Your task to perform on an android device: Show me productivity apps on the Play Store Image 0: 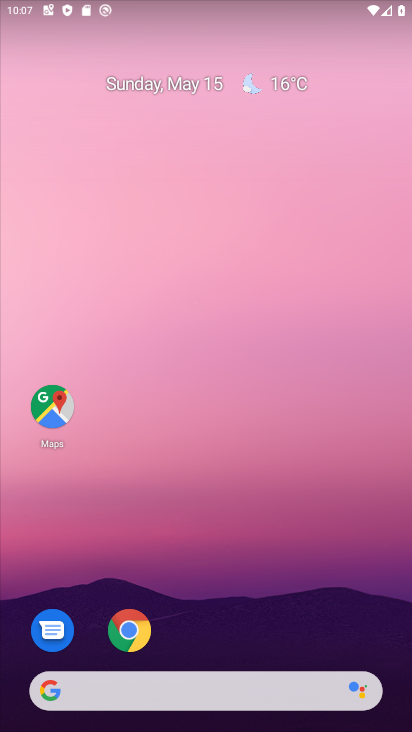
Step 0: drag from (214, 616) to (224, 251)
Your task to perform on an android device: Show me productivity apps on the Play Store Image 1: 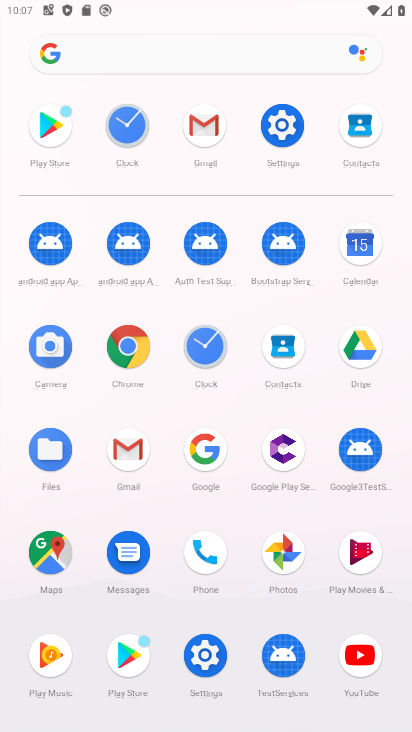
Step 1: click (129, 638)
Your task to perform on an android device: Show me productivity apps on the Play Store Image 2: 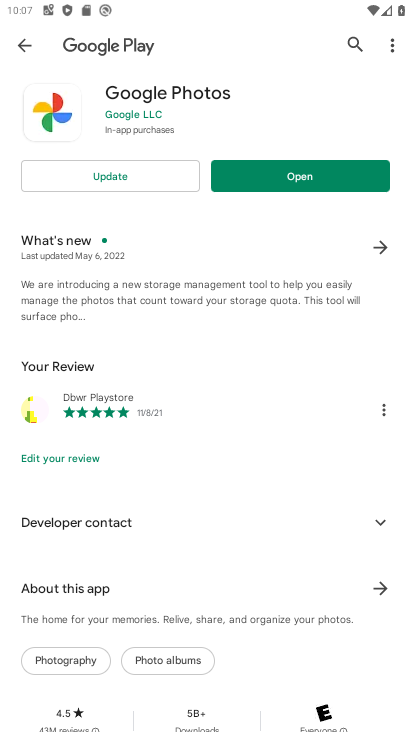
Step 2: click (255, 164)
Your task to perform on an android device: Show me productivity apps on the Play Store Image 3: 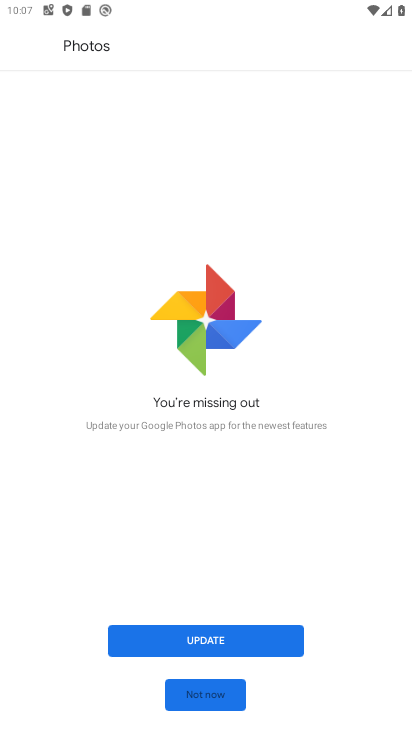
Step 3: click (223, 702)
Your task to perform on an android device: Show me productivity apps on the Play Store Image 4: 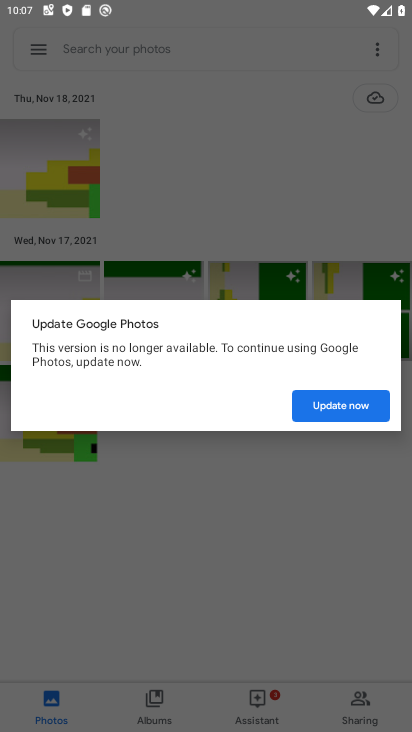
Step 4: click (311, 408)
Your task to perform on an android device: Show me productivity apps on the Play Store Image 5: 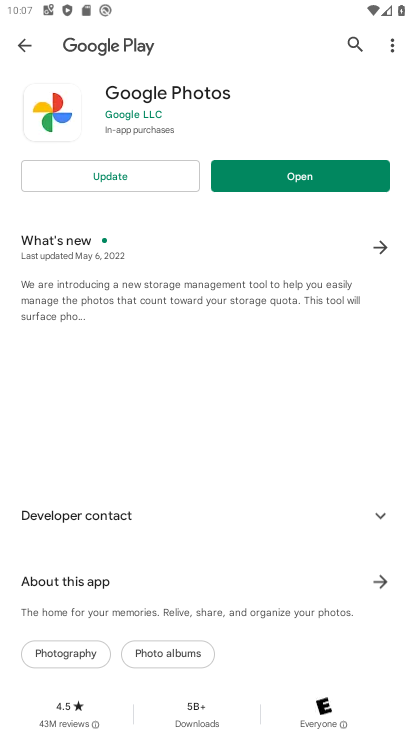
Step 5: click (287, 173)
Your task to perform on an android device: Show me productivity apps on the Play Store Image 6: 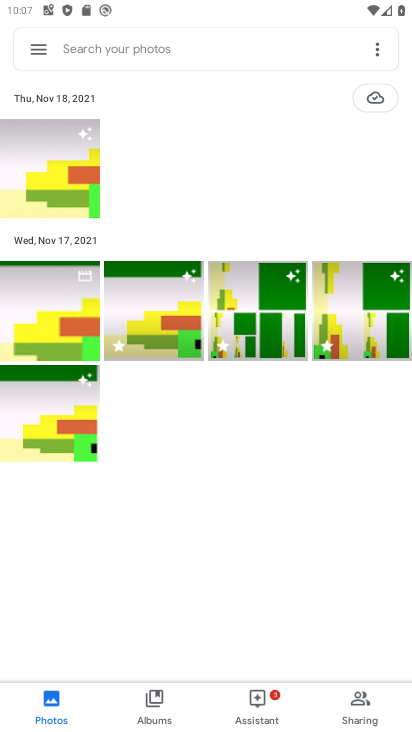
Step 6: press back button
Your task to perform on an android device: Show me productivity apps on the Play Store Image 7: 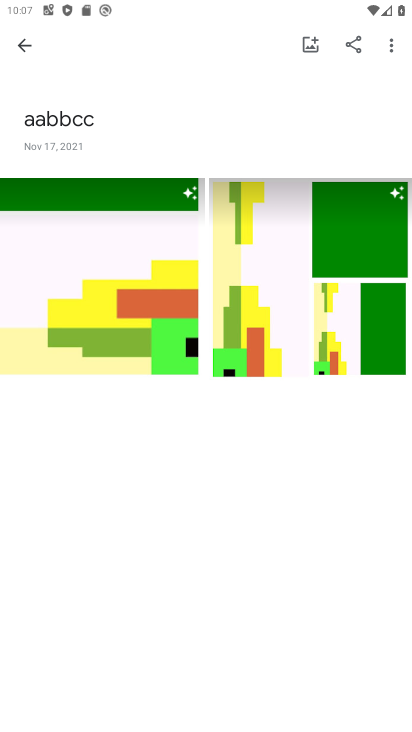
Step 7: press back button
Your task to perform on an android device: Show me productivity apps on the Play Store Image 8: 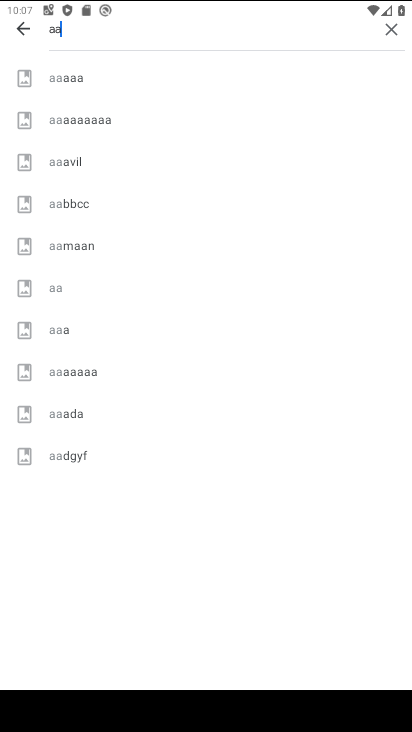
Step 8: press back button
Your task to perform on an android device: Show me productivity apps on the Play Store Image 9: 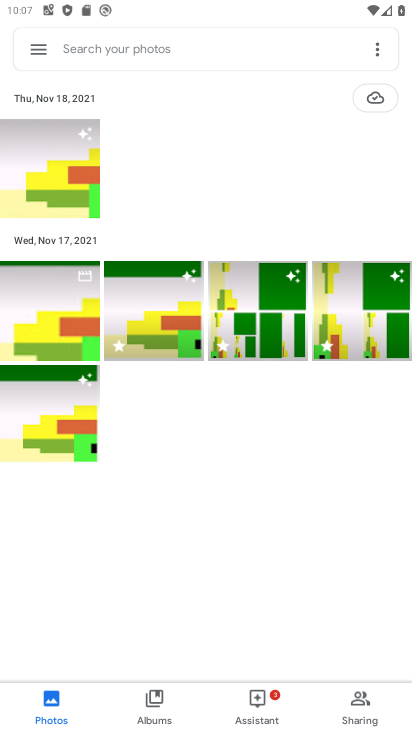
Step 9: press back button
Your task to perform on an android device: Show me productivity apps on the Play Store Image 10: 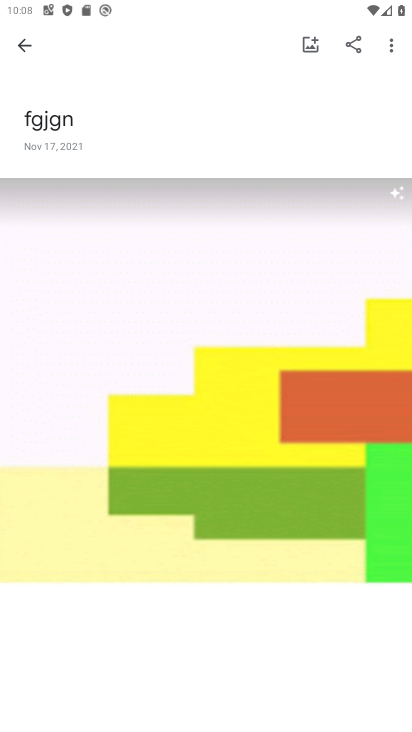
Step 10: press home button
Your task to perform on an android device: Show me productivity apps on the Play Store Image 11: 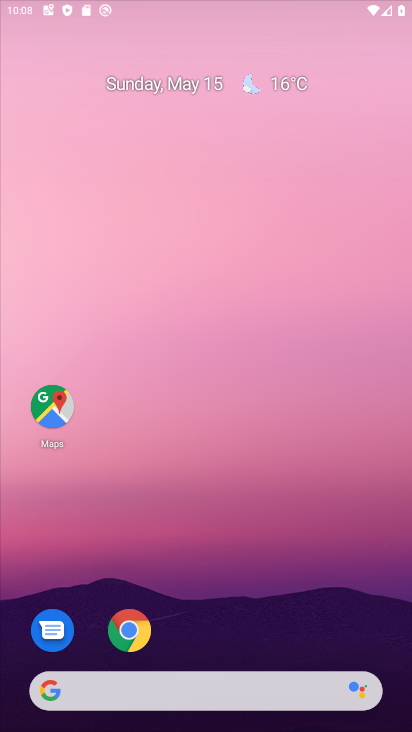
Step 11: drag from (197, 637) to (185, 242)
Your task to perform on an android device: Show me productivity apps on the Play Store Image 12: 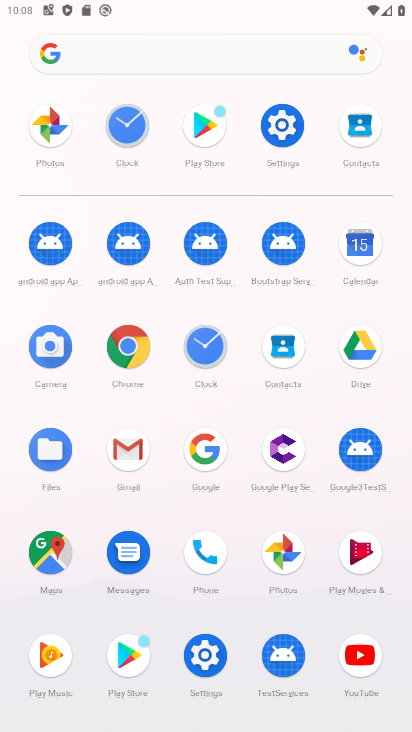
Step 12: click (202, 145)
Your task to perform on an android device: Show me productivity apps on the Play Store Image 13: 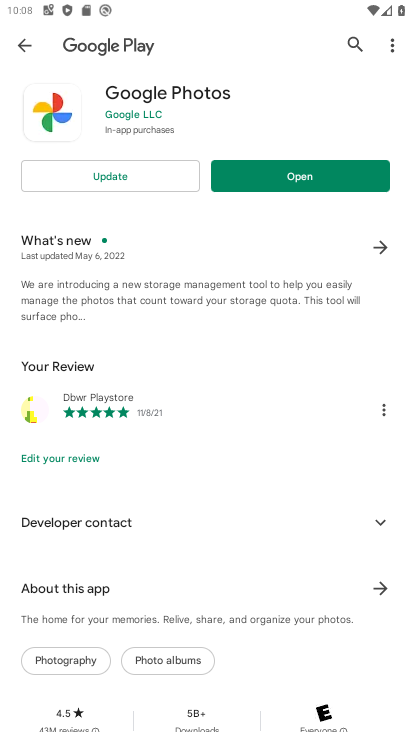
Step 13: click (21, 50)
Your task to perform on an android device: Show me productivity apps on the Play Store Image 14: 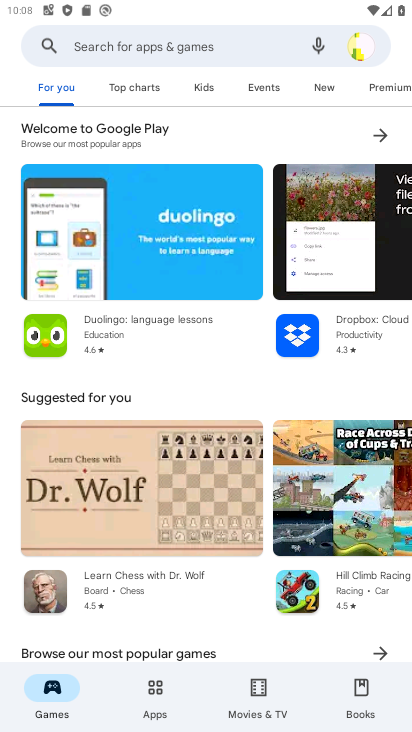
Step 14: click (153, 688)
Your task to perform on an android device: Show me productivity apps on the Play Store Image 15: 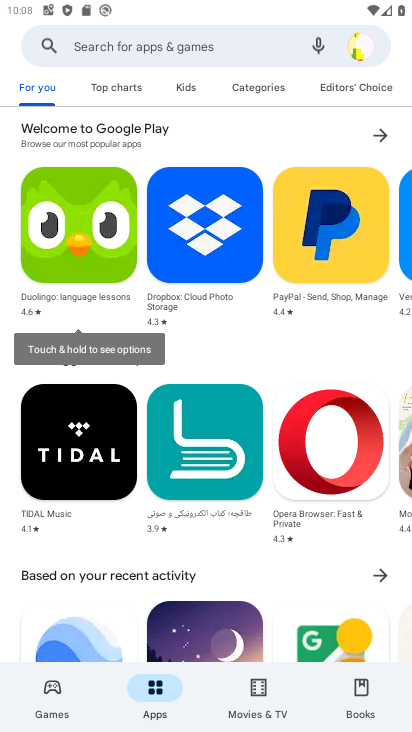
Step 15: click (255, 79)
Your task to perform on an android device: Show me productivity apps on the Play Store Image 16: 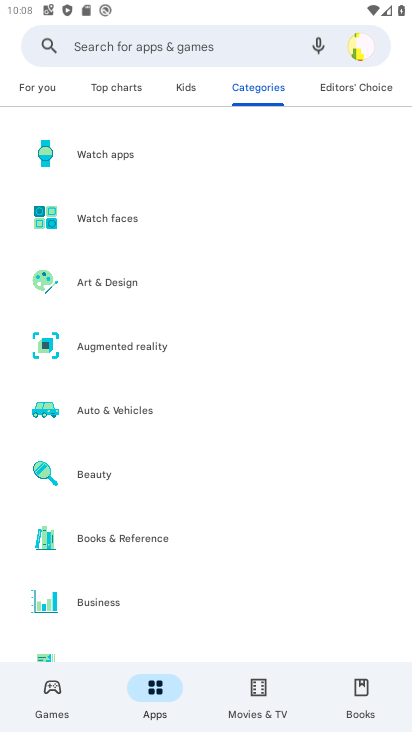
Step 16: drag from (210, 612) to (214, 290)
Your task to perform on an android device: Show me productivity apps on the Play Store Image 17: 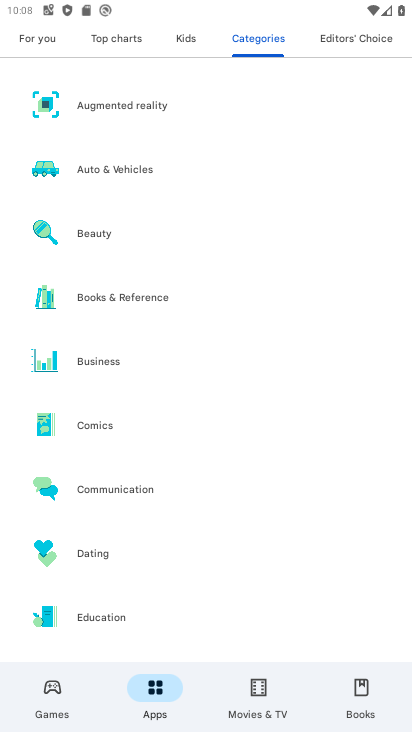
Step 17: drag from (235, 481) to (212, 247)
Your task to perform on an android device: Show me productivity apps on the Play Store Image 18: 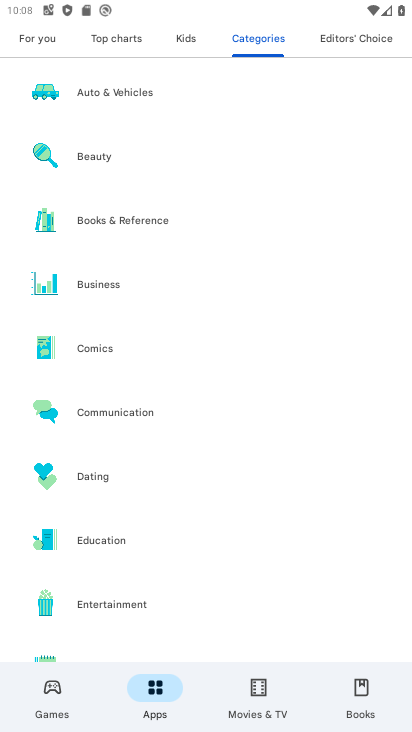
Step 18: drag from (244, 486) to (233, 282)
Your task to perform on an android device: Show me productivity apps on the Play Store Image 19: 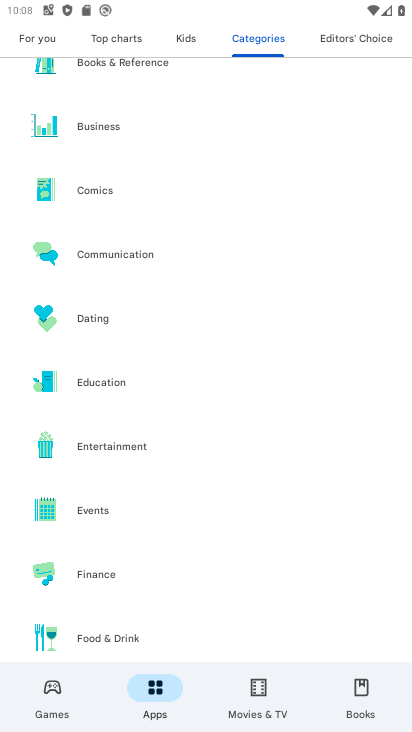
Step 19: drag from (245, 505) to (265, 227)
Your task to perform on an android device: Show me productivity apps on the Play Store Image 20: 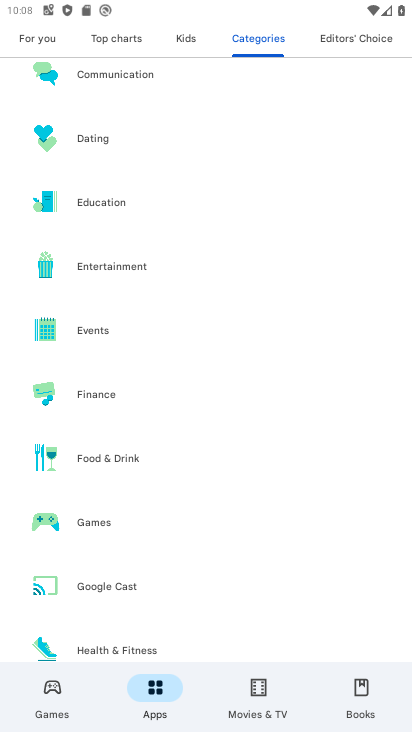
Step 20: drag from (226, 547) to (237, 265)
Your task to perform on an android device: Show me productivity apps on the Play Store Image 21: 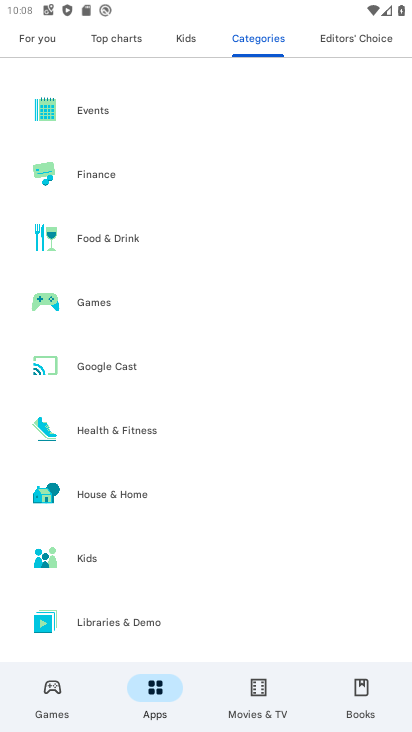
Step 21: drag from (211, 511) to (230, 238)
Your task to perform on an android device: Show me productivity apps on the Play Store Image 22: 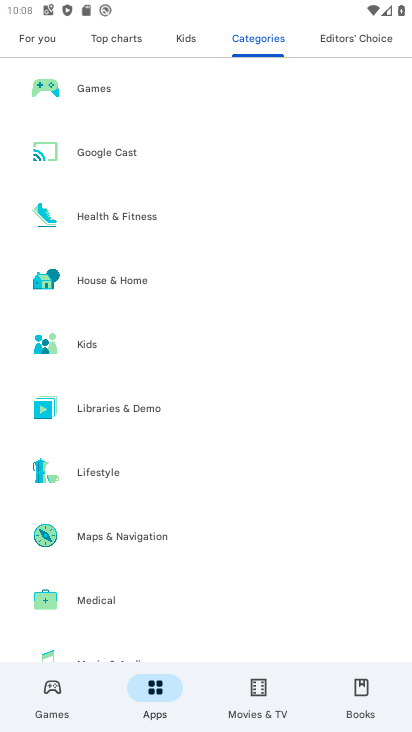
Step 22: drag from (140, 546) to (215, 338)
Your task to perform on an android device: Show me productivity apps on the Play Store Image 23: 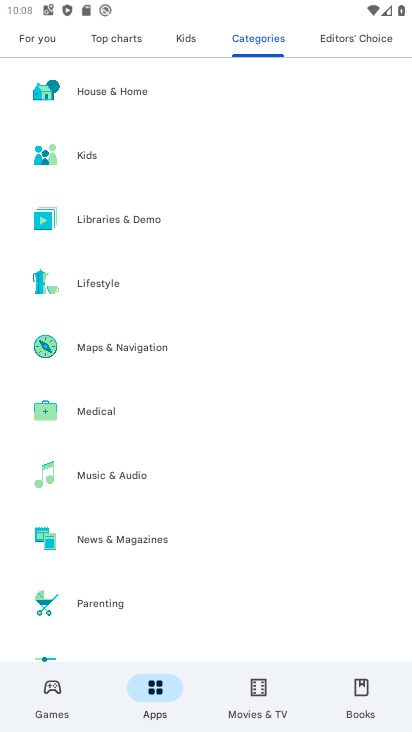
Step 23: drag from (167, 595) to (227, 349)
Your task to perform on an android device: Show me productivity apps on the Play Store Image 24: 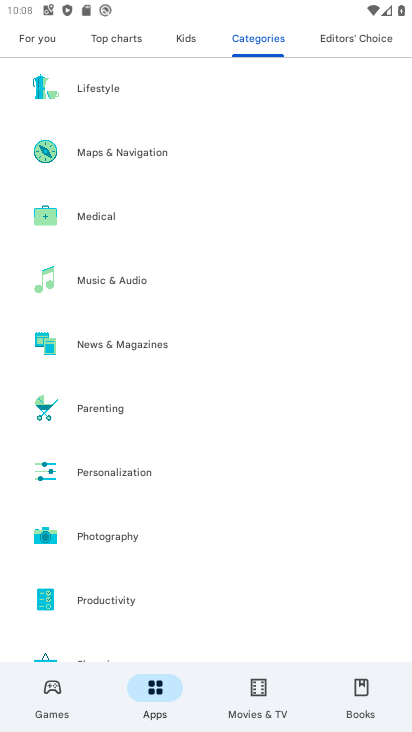
Step 24: click (134, 597)
Your task to perform on an android device: Show me productivity apps on the Play Store Image 25: 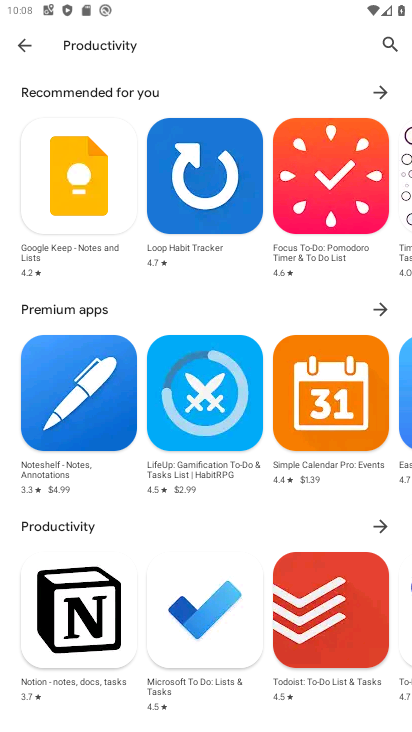
Step 25: task complete